Your task to perform on an android device: Open the map Image 0: 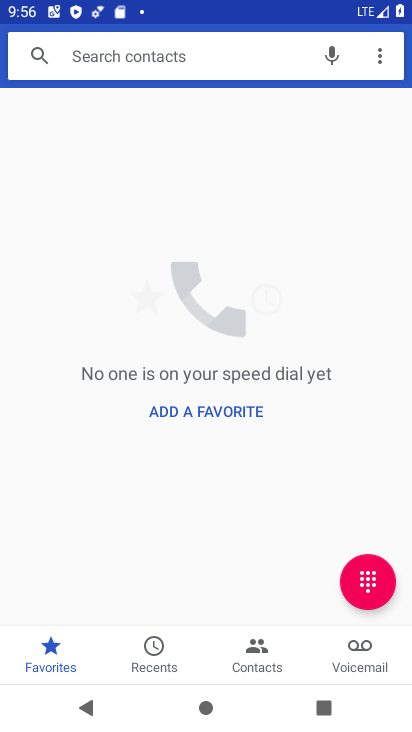
Step 0: press back button
Your task to perform on an android device: Open the map Image 1: 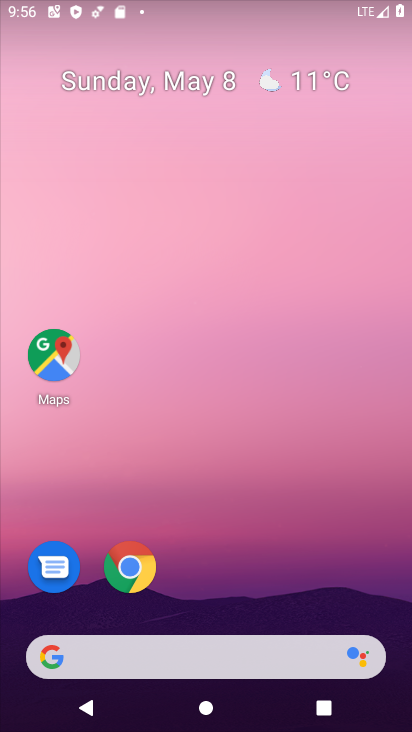
Step 1: click (59, 339)
Your task to perform on an android device: Open the map Image 2: 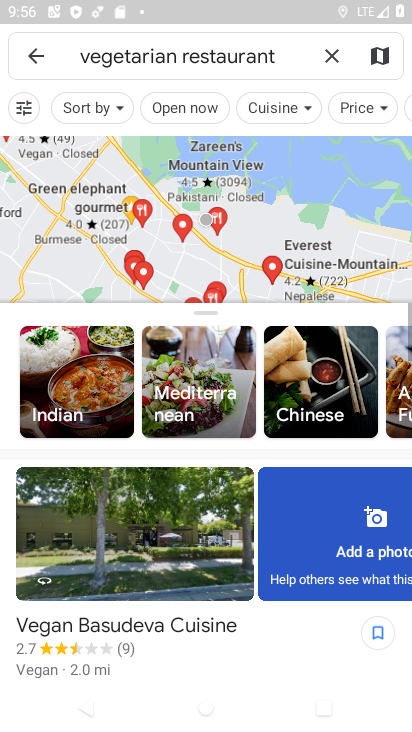
Step 2: task complete